Your task to perform on an android device: turn off priority inbox in the gmail app Image 0: 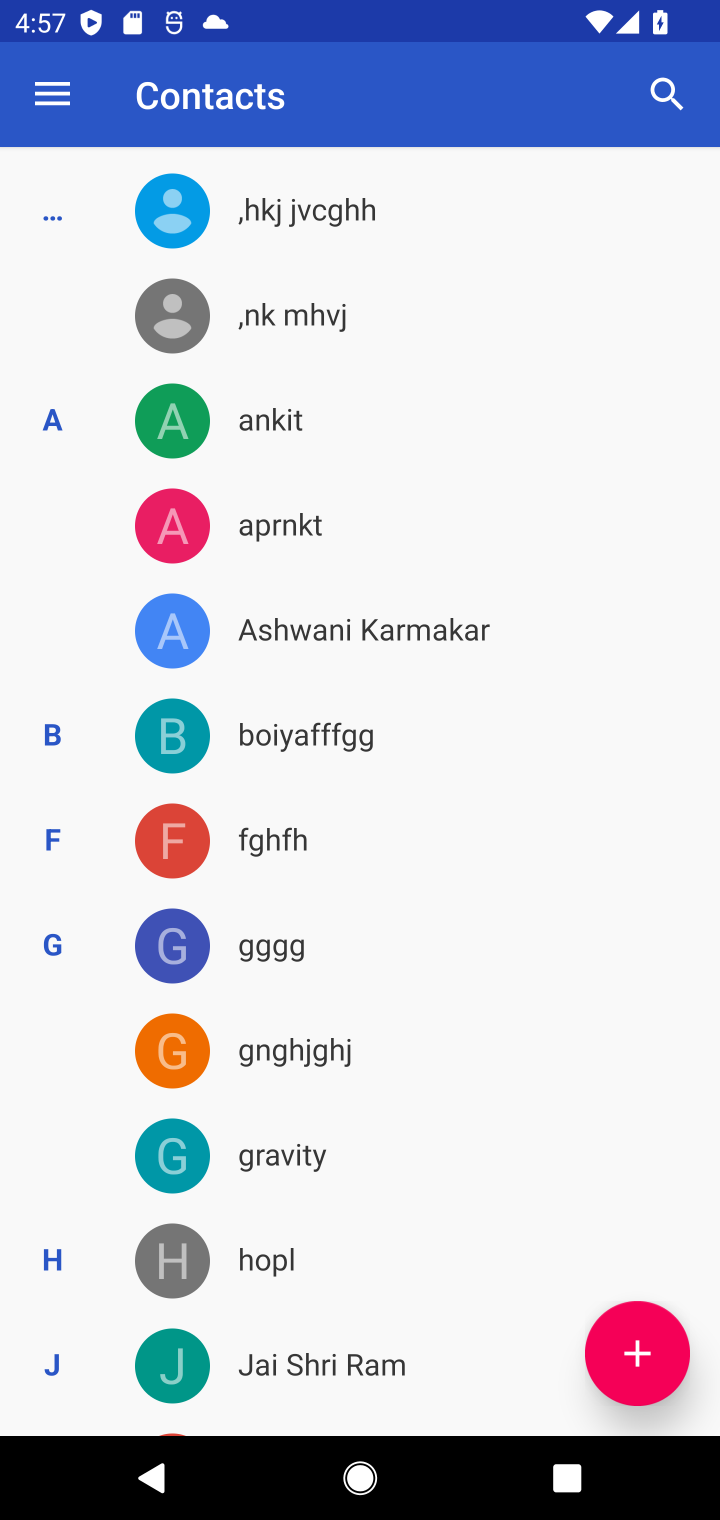
Step 0: press home button
Your task to perform on an android device: turn off priority inbox in the gmail app Image 1: 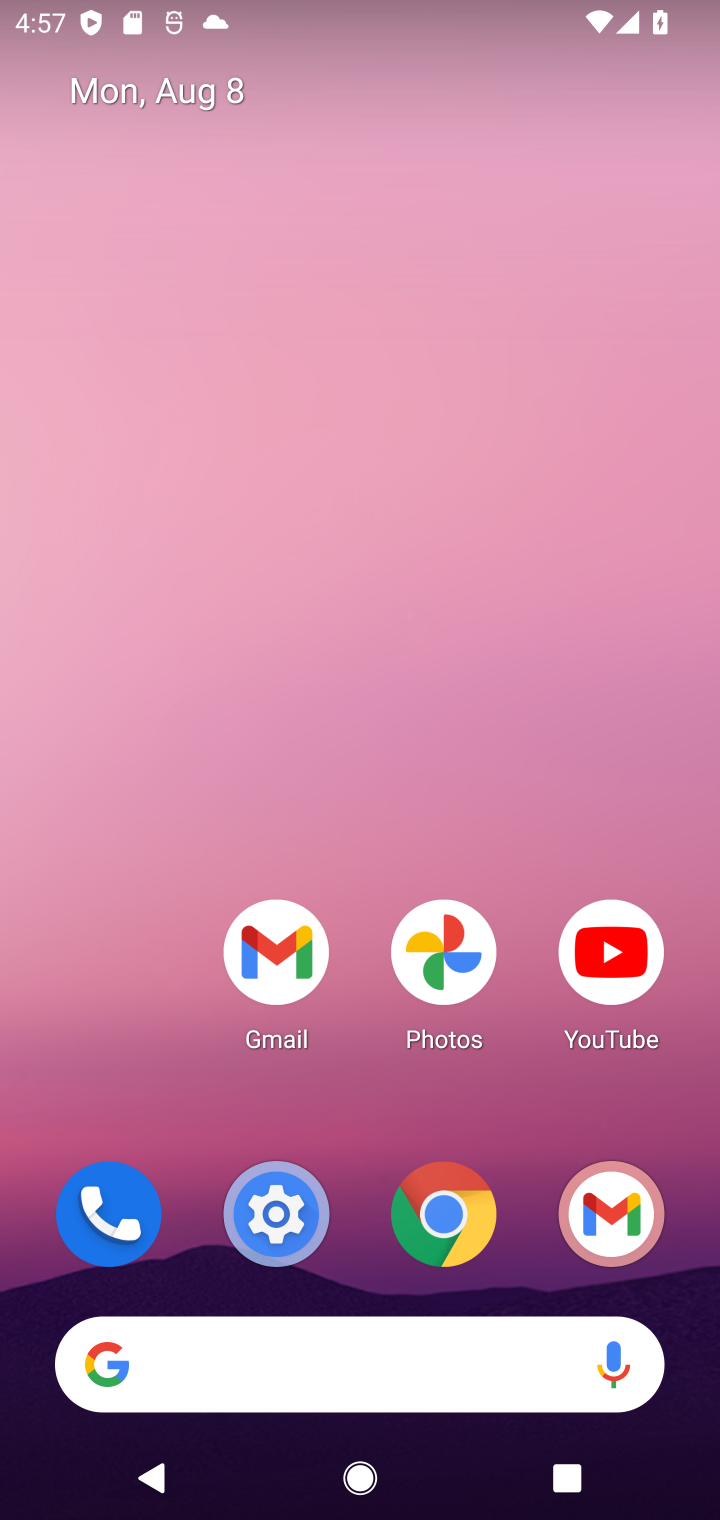
Step 1: drag from (351, 1067) to (344, 35)
Your task to perform on an android device: turn off priority inbox in the gmail app Image 2: 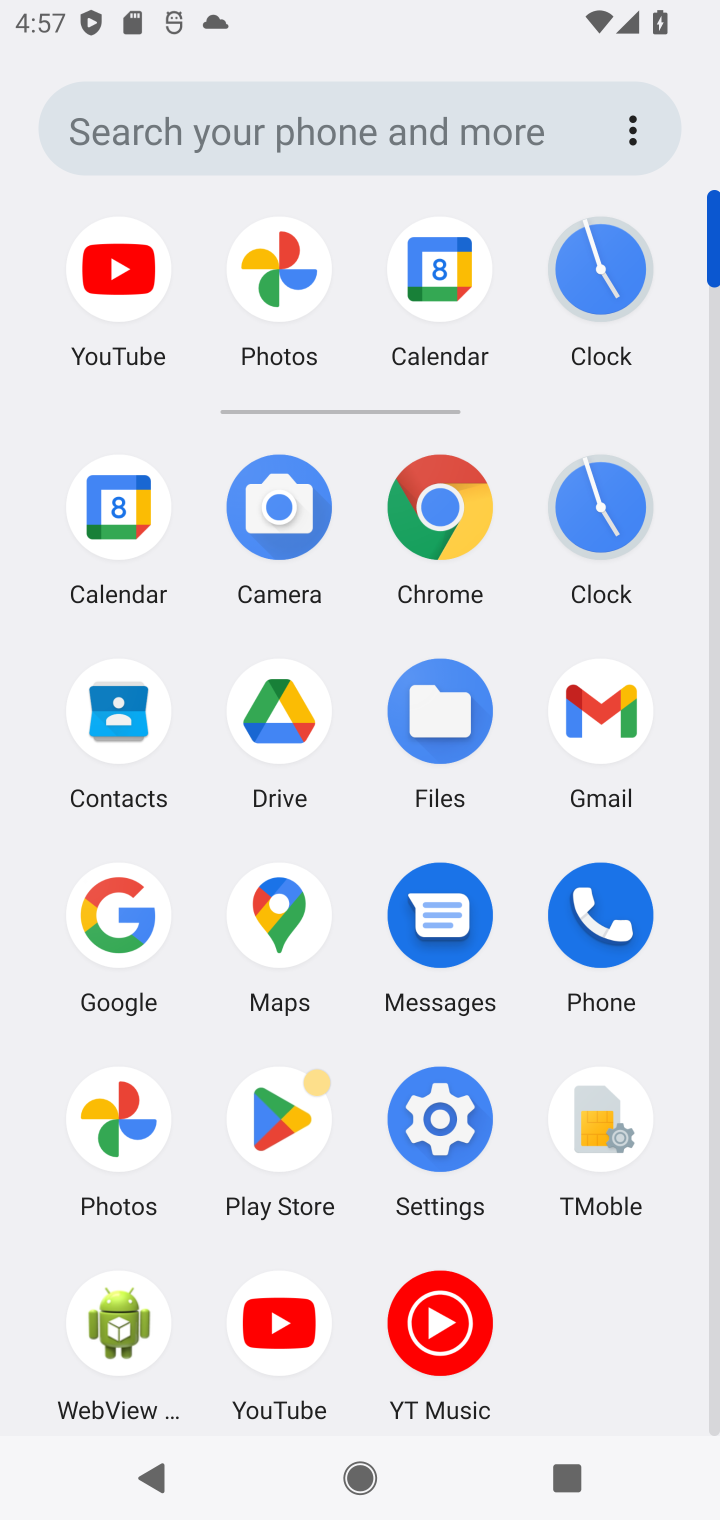
Step 2: click (599, 717)
Your task to perform on an android device: turn off priority inbox in the gmail app Image 3: 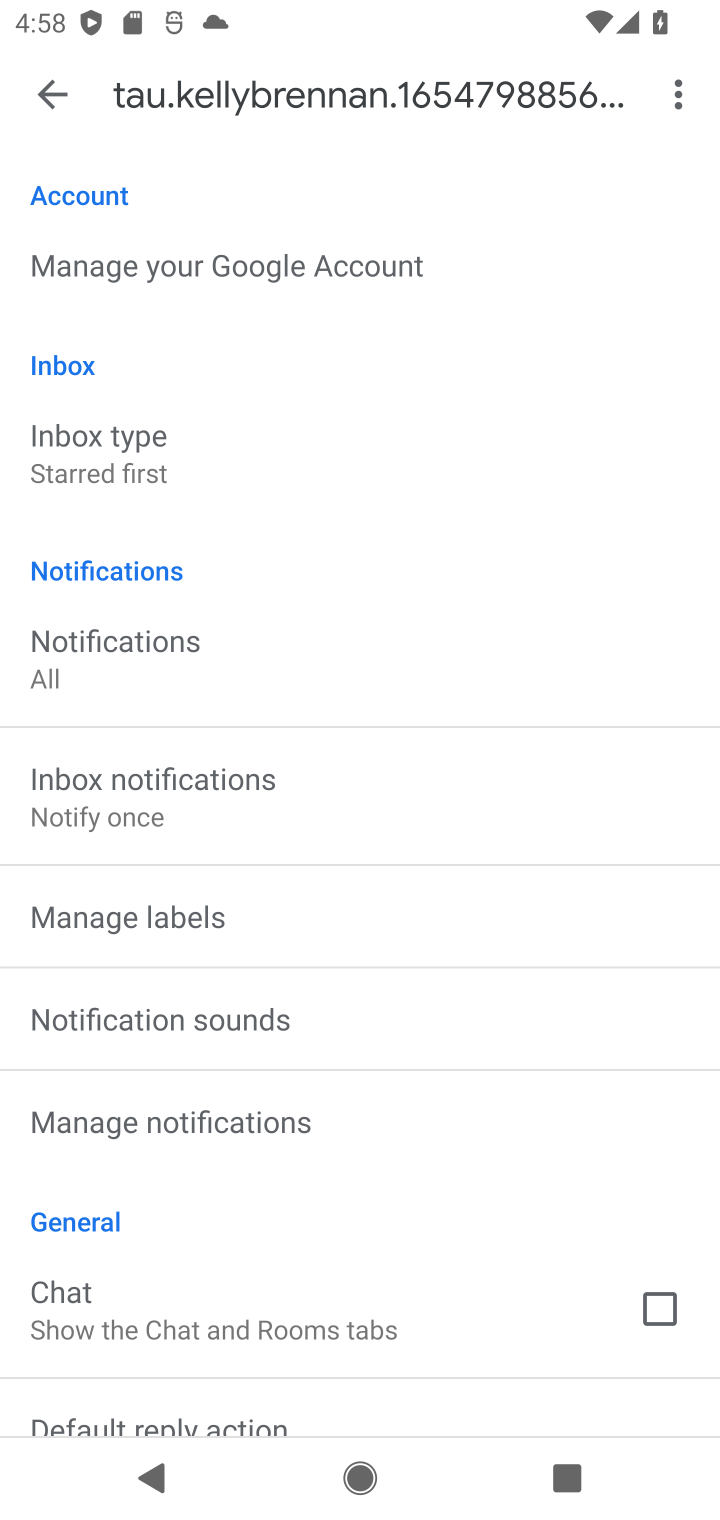
Step 3: task complete